Your task to perform on an android device: turn on improve location accuracy Image 0: 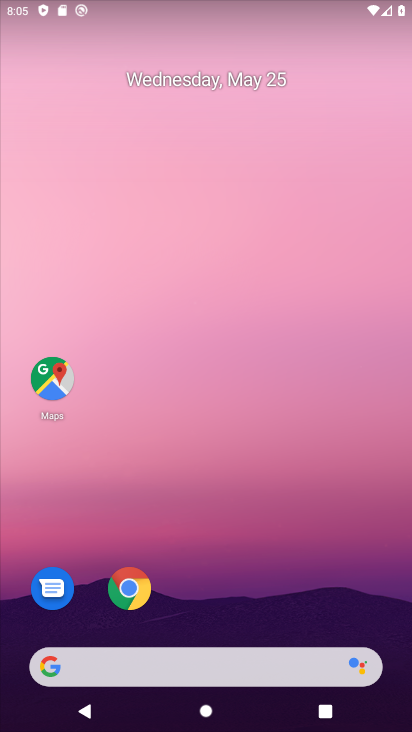
Step 0: drag from (7, 671) to (318, 173)
Your task to perform on an android device: turn on improve location accuracy Image 1: 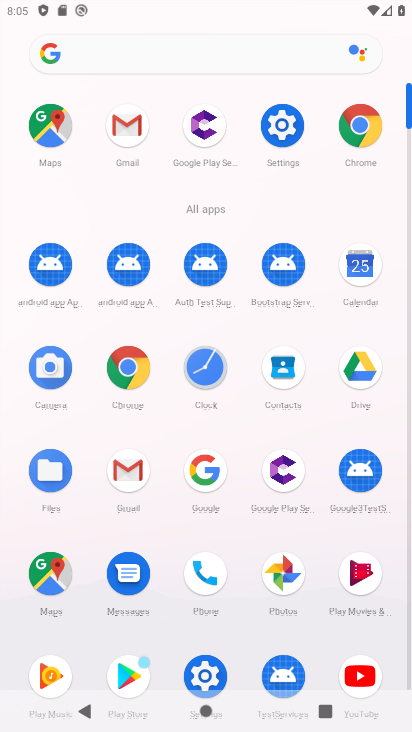
Step 1: click (303, 115)
Your task to perform on an android device: turn on improve location accuracy Image 2: 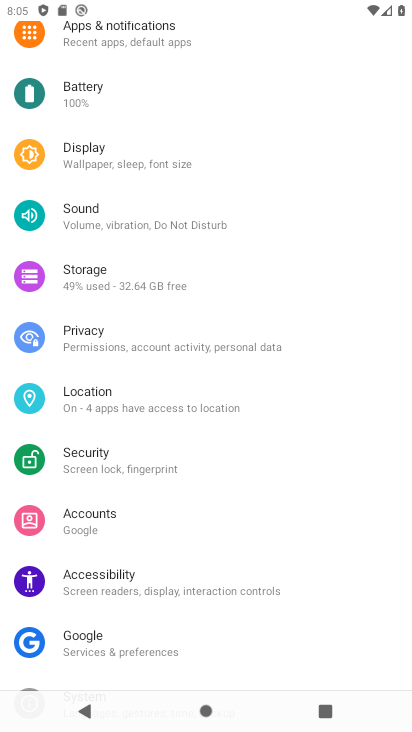
Step 2: click (199, 410)
Your task to perform on an android device: turn on improve location accuracy Image 3: 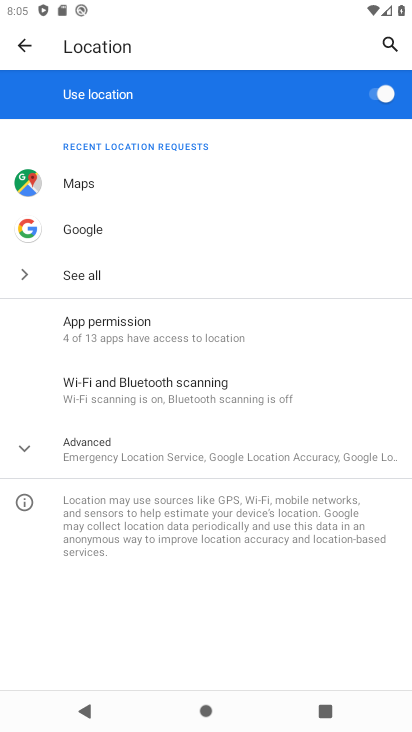
Step 3: click (113, 441)
Your task to perform on an android device: turn on improve location accuracy Image 4: 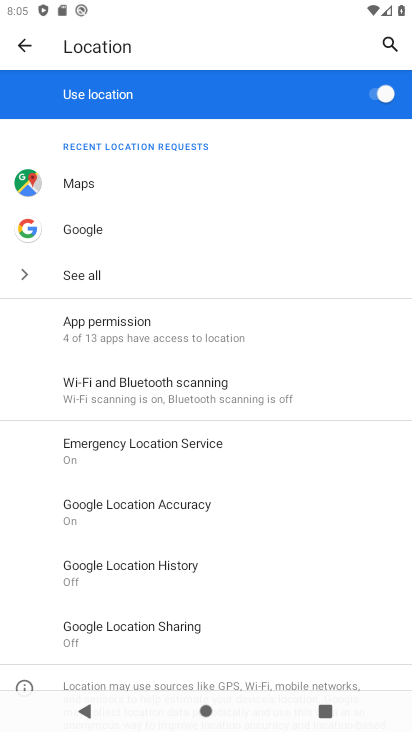
Step 4: click (189, 510)
Your task to perform on an android device: turn on improve location accuracy Image 5: 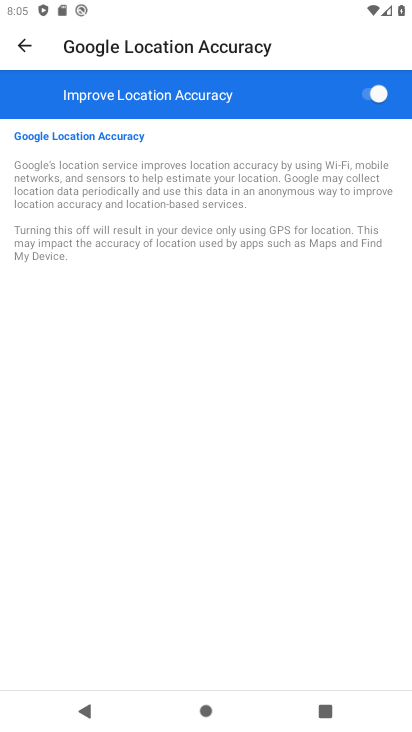
Step 5: task complete